Your task to perform on an android device: toggle notification dots Image 0: 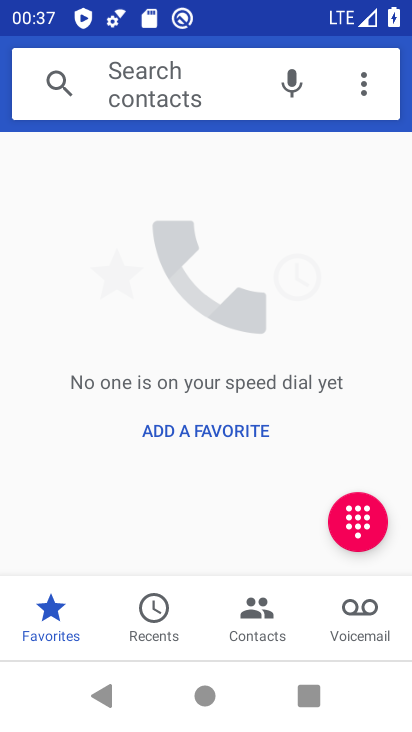
Step 0: press home button
Your task to perform on an android device: toggle notification dots Image 1: 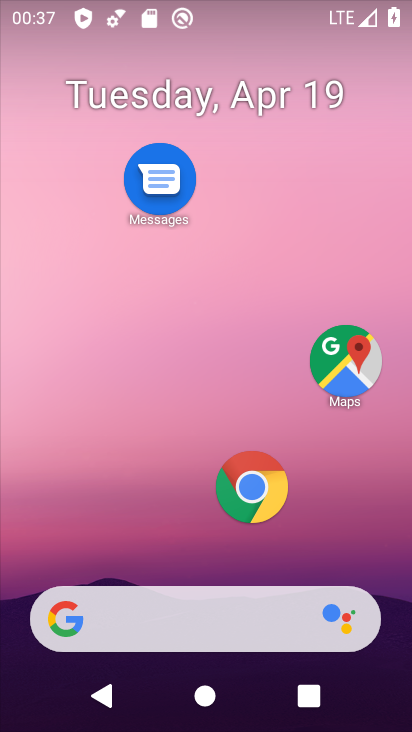
Step 1: drag from (138, 571) to (201, 5)
Your task to perform on an android device: toggle notification dots Image 2: 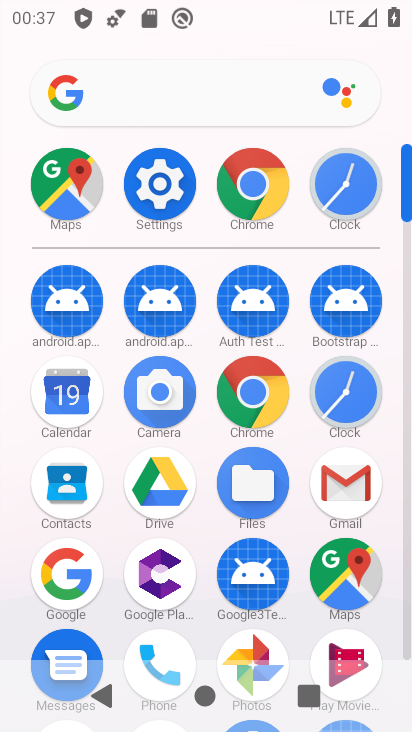
Step 2: click (163, 186)
Your task to perform on an android device: toggle notification dots Image 3: 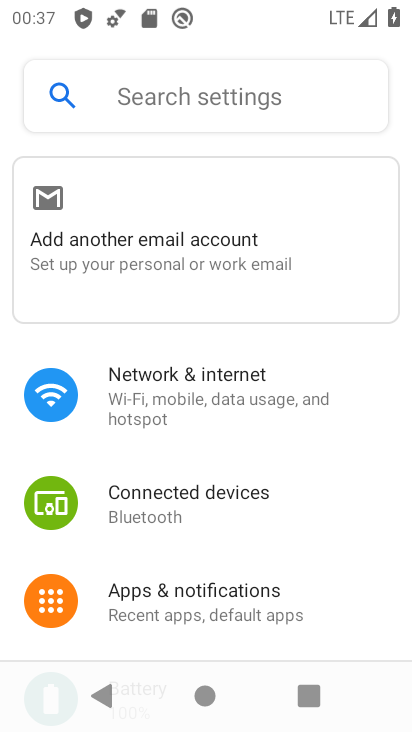
Step 3: click (189, 584)
Your task to perform on an android device: toggle notification dots Image 4: 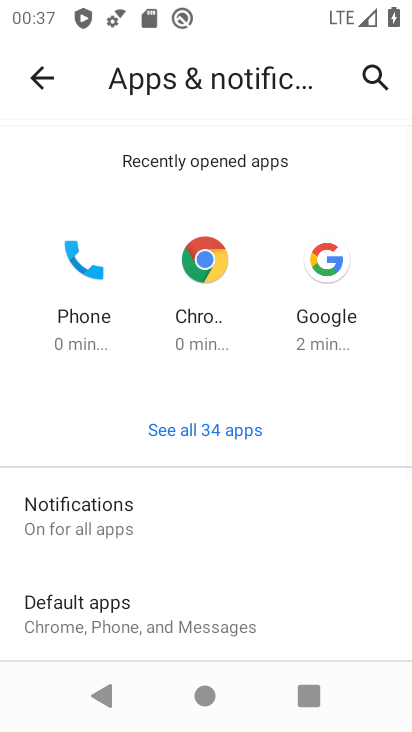
Step 4: drag from (185, 525) to (163, 99)
Your task to perform on an android device: toggle notification dots Image 5: 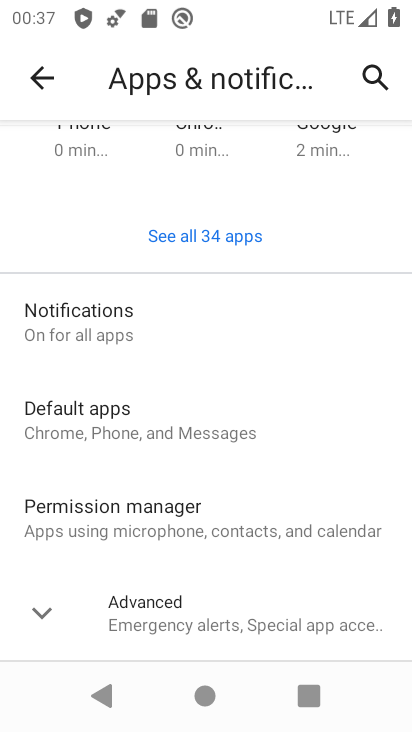
Step 5: click (103, 315)
Your task to perform on an android device: toggle notification dots Image 6: 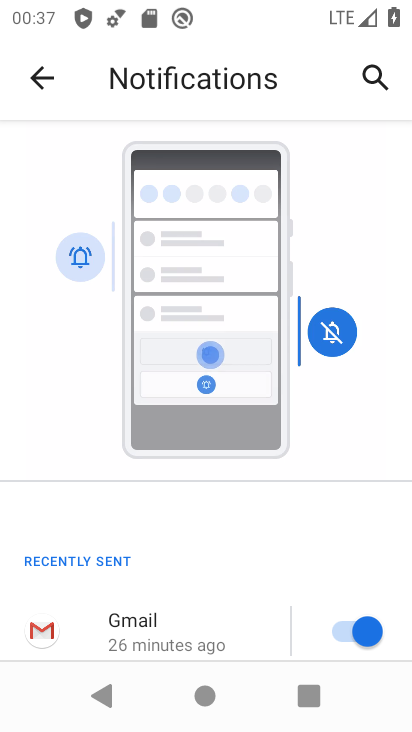
Step 6: drag from (206, 589) to (160, 3)
Your task to perform on an android device: toggle notification dots Image 7: 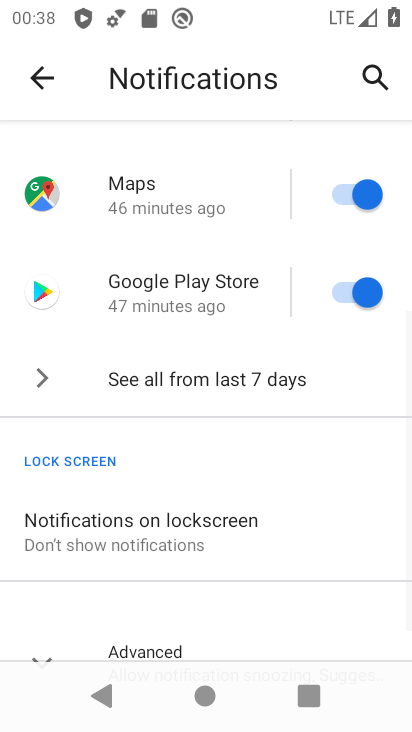
Step 7: drag from (188, 571) to (191, 126)
Your task to perform on an android device: toggle notification dots Image 8: 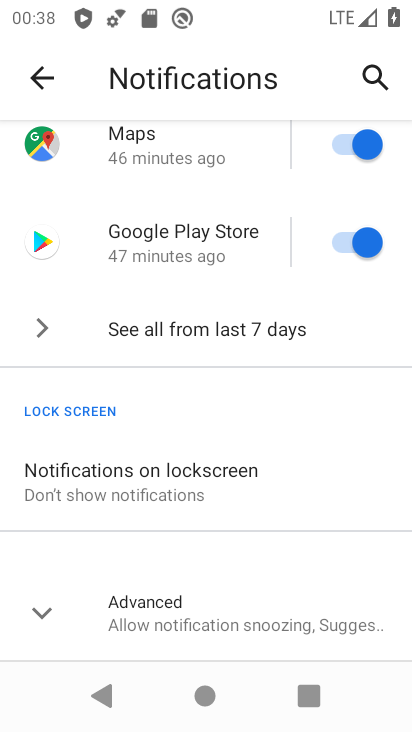
Step 8: click (53, 605)
Your task to perform on an android device: toggle notification dots Image 9: 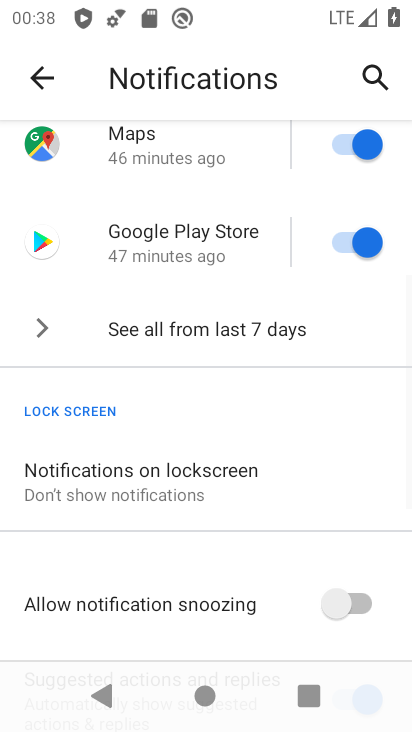
Step 9: drag from (117, 556) to (113, 286)
Your task to perform on an android device: toggle notification dots Image 10: 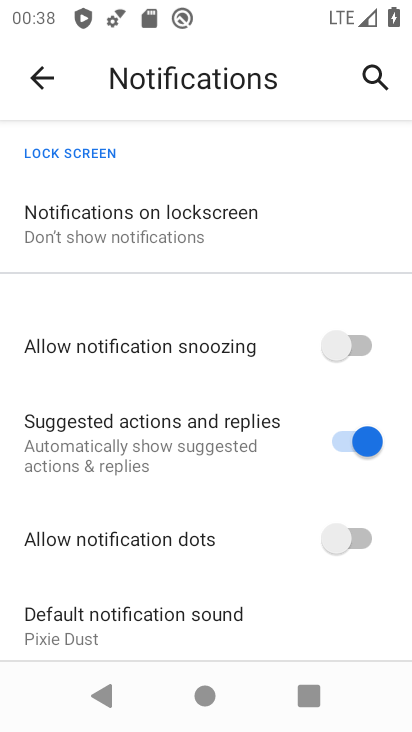
Step 10: drag from (187, 596) to (155, 264)
Your task to perform on an android device: toggle notification dots Image 11: 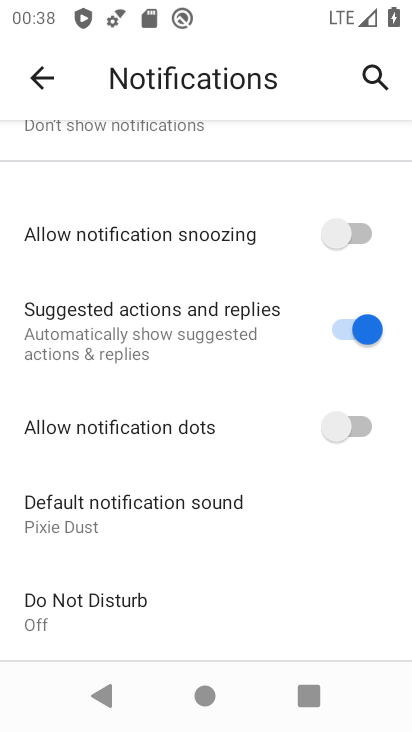
Step 11: click (328, 433)
Your task to perform on an android device: toggle notification dots Image 12: 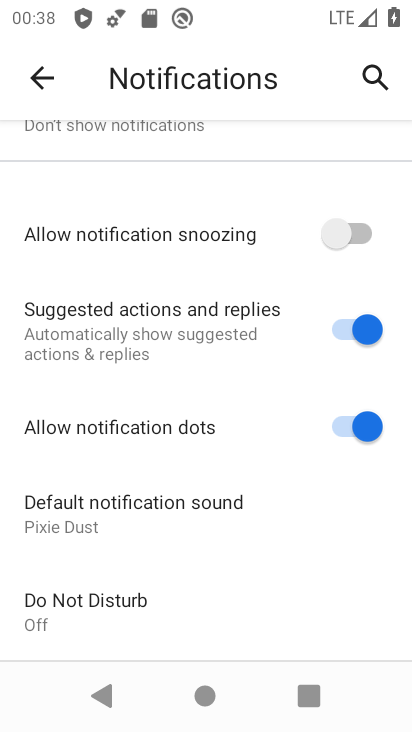
Step 12: task complete